Your task to perform on an android device: turn off picture-in-picture Image 0: 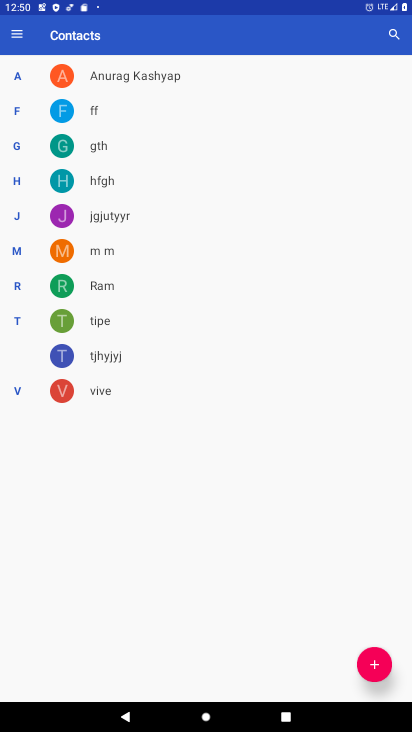
Step 0: press home button
Your task to perform on an android device: turn off picture-in-picture Image 1: 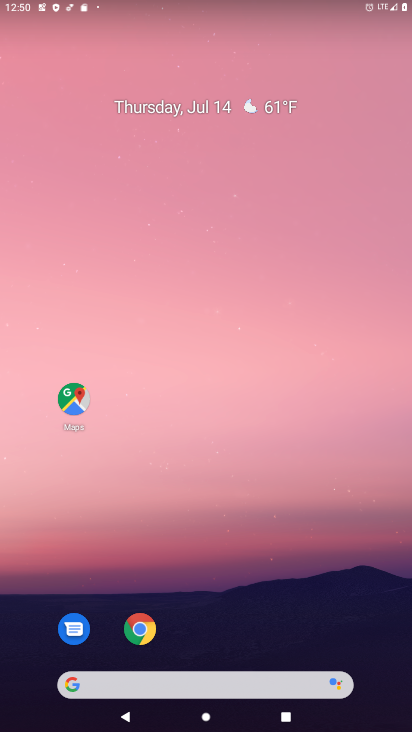
Step 1: drag from (223, 544) to (123, 124)
Your task to perform on an android device: turn off picture-in-picture Image 2: 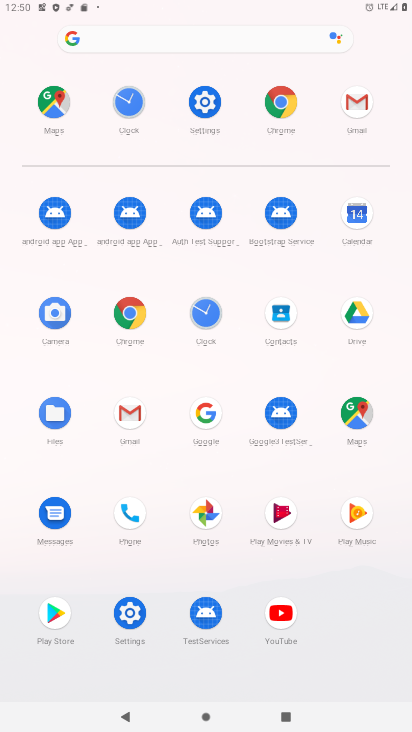
Step 2: click (200, 105)
Your task to perform on an android device: turn off picture-in-picture Image 3: 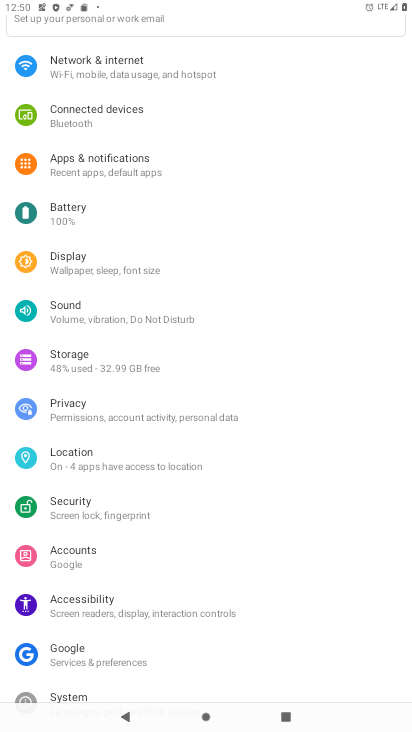
Step 3: click (121, 165)
Your task to perform on an android device: turn off picture-in-picture Image 4: 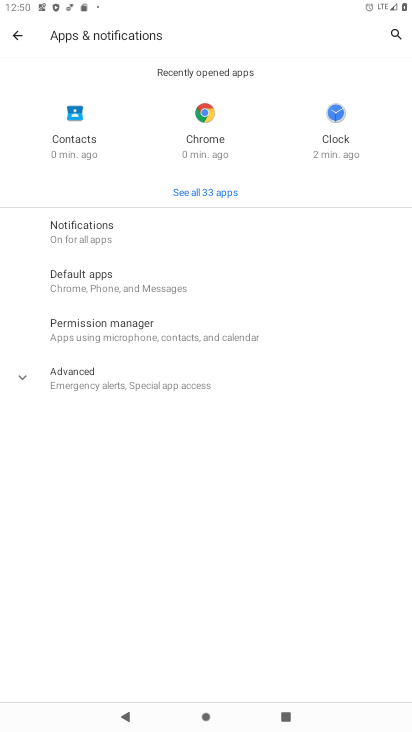
Step 4: click (88, 222)
Your task to perform on an android device: turn off picture-in-picture Image 5: 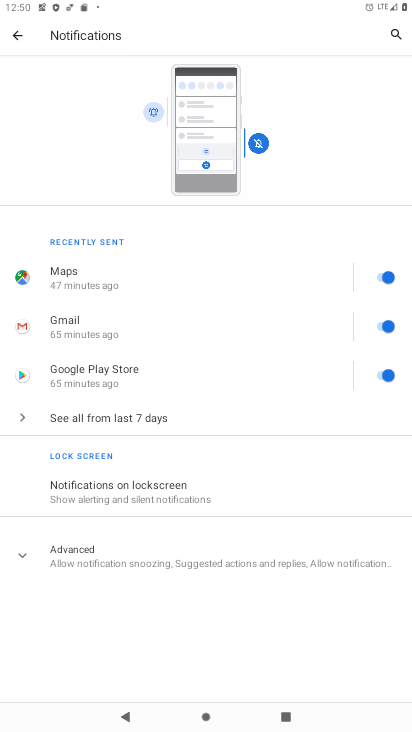
Step 5: click (23, 555)
Your task to perform on an android device: turn off picture-in-picture Image 6: 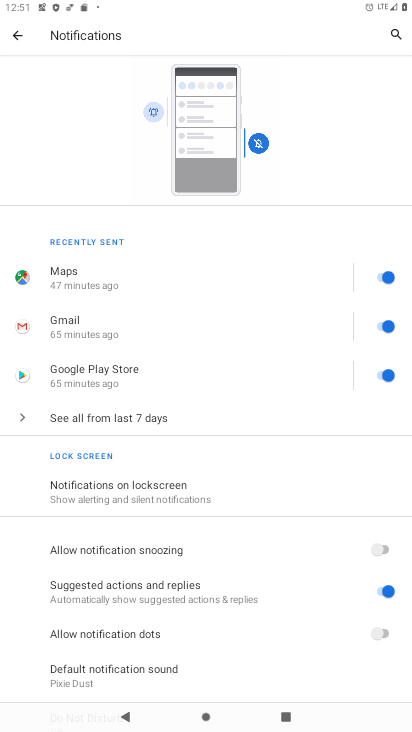
Step 6: drag from (229, 644) to (245, 414)
Your task to perform on an android device: turn off picture-in-picture Image 7: 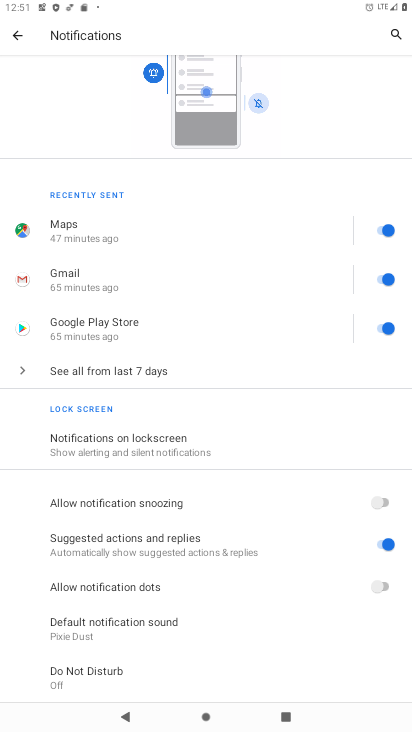
Step 7: click (13, 34)
Your task to perform on an android device: turn off picture-in-picture Image 8: 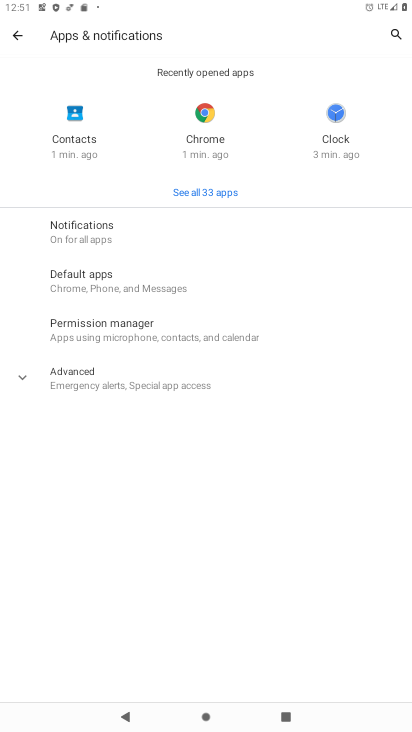
Step 8: click (20, 380)
Your task to perform on an android device: turn off picture-in-picture Image 9: 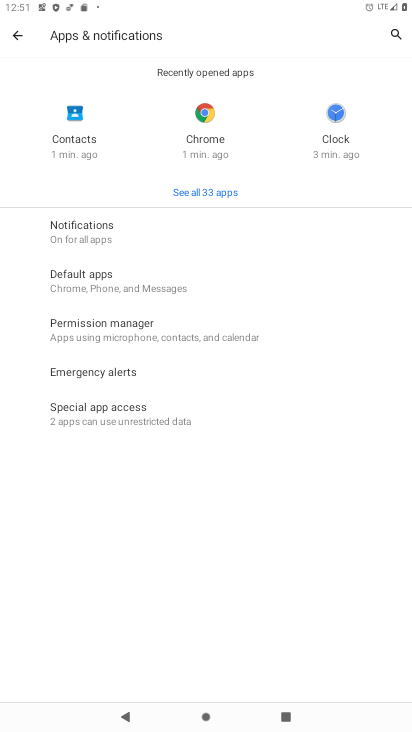
Step 9: click (102, 415)
Your task to perform on an android device: turn off picture-in-picture Image 10: 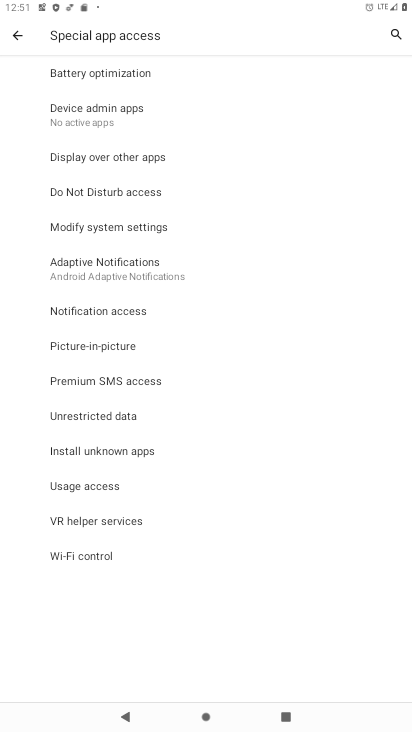
Step 10: click (121, 345)
Your task to perform on an android device: turn off picture-in-picture Image 11: 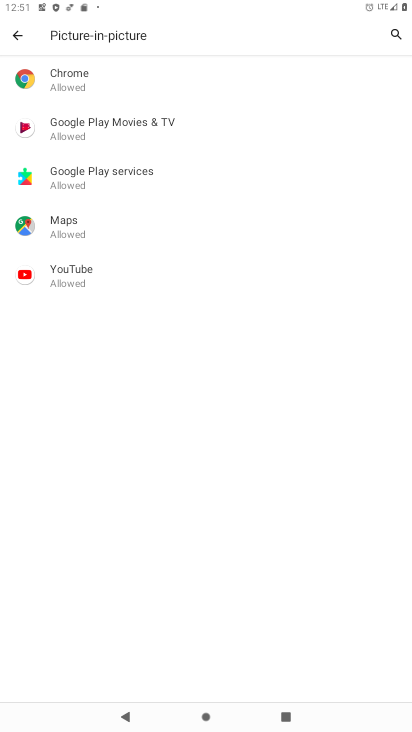
Step 11: click (78, 88)
Your task to perform on an android device: turn off picture-in-picture Image 12: 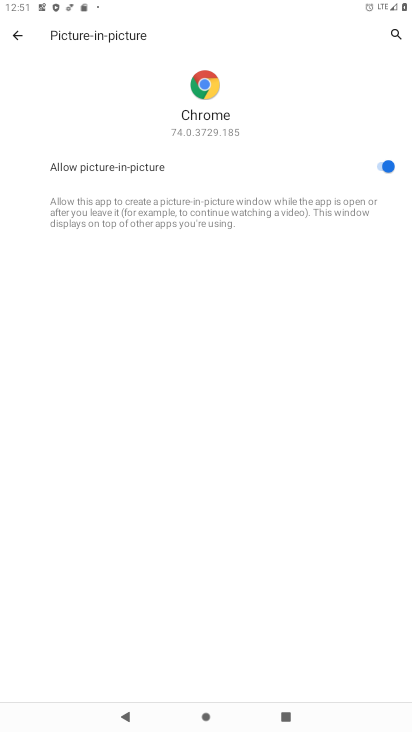
Step 12: click (389, 171)
Your task to perform on an android device: turn off picture-in-picture Image 13: 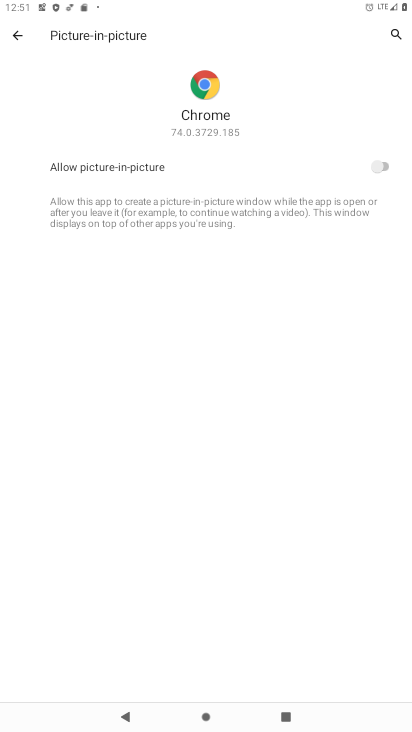
Step 13: click (17, 43)
Your task to perform on an android device: turn off picture-in-picture Image 14: 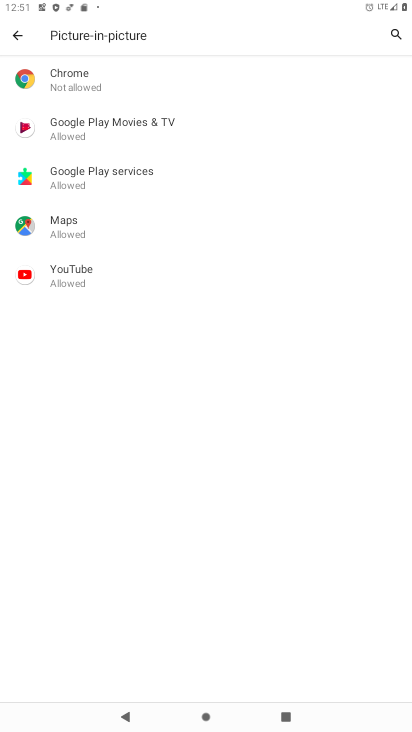
Step 14: click (80, 127)
Your task to perform on an android device: turn off picture-in-picture Image 15: 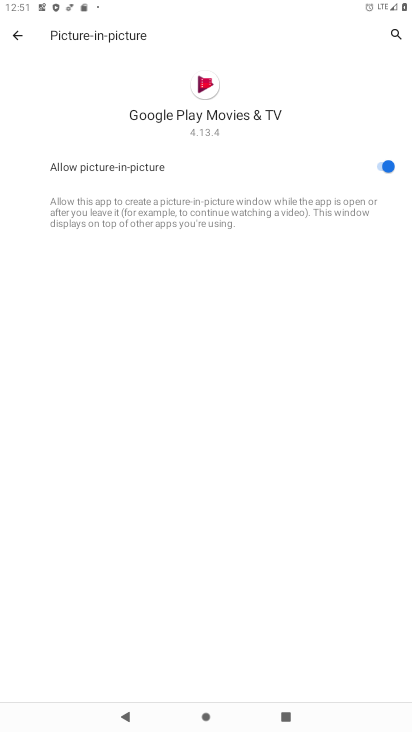
Step 15: click (387, 166)
Your task to perform on an android device: turn off picture-in-picture Image 16: 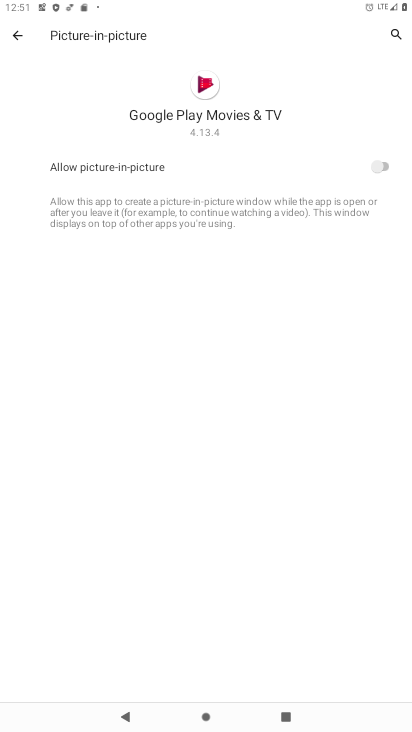
Step 16: click (16, 35)
Your task to perform on an android device: turn off picture-in-picture Image 17: 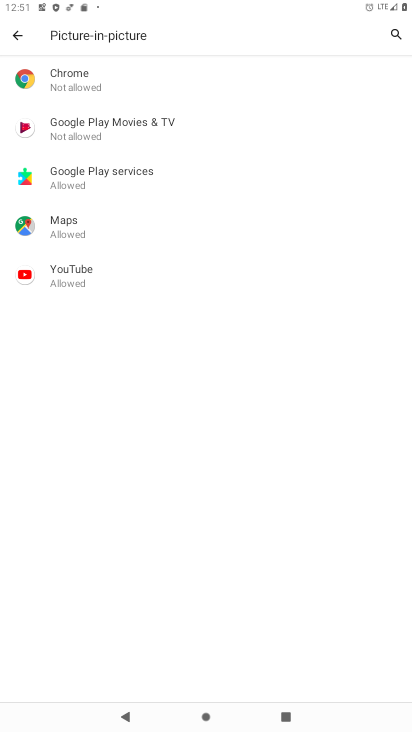
Step 17: click (90, 182)
Your task to perform on an android device: turn off picture-in-picture Image 18: 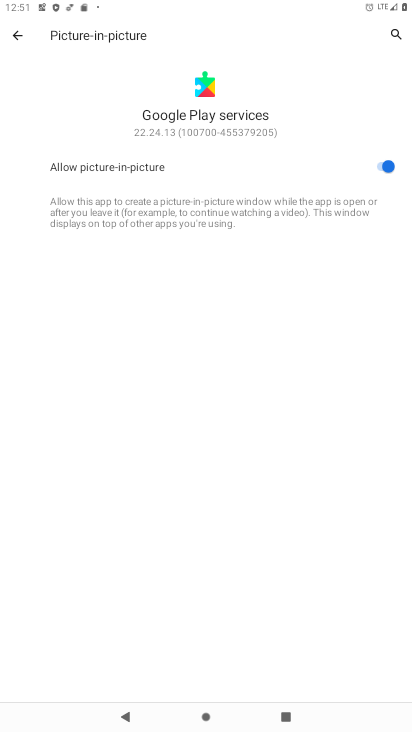
Step 18: click (391, 167)
Your task to perform on an android device: turn off picture-in-picture Image 19: 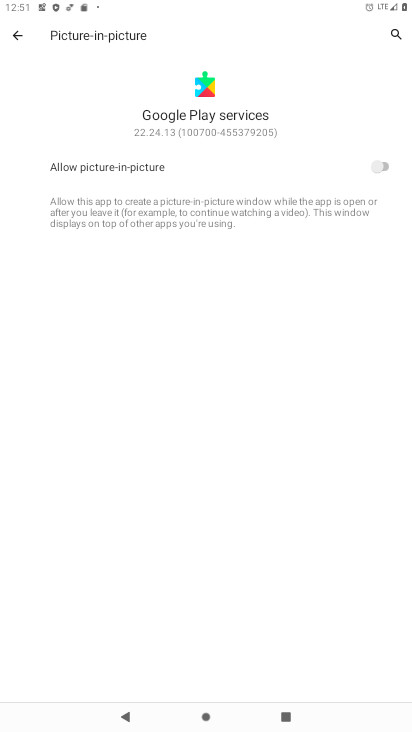
Step 19: click (18, 40)
Your task to perform on an android device: turn off picture-in-picture Image 20: 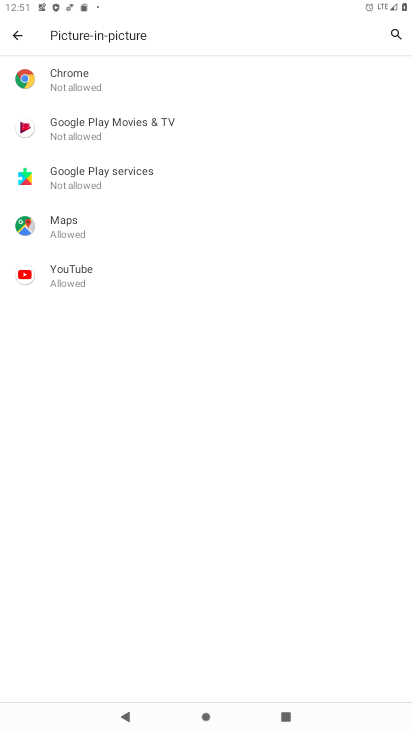
Step 20: click (61, 277)
Your task to perform on an android device: turn off picture-in-picture Image 21: 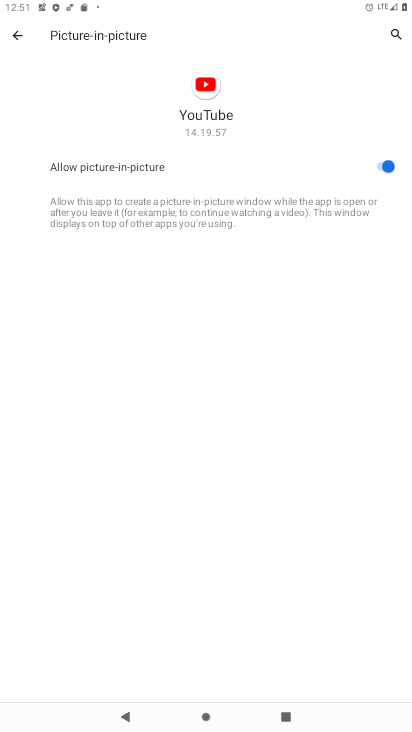
Step 21: click (398, 164)
Your task to perform on an android device: turn off picture-in-picture Image 22: 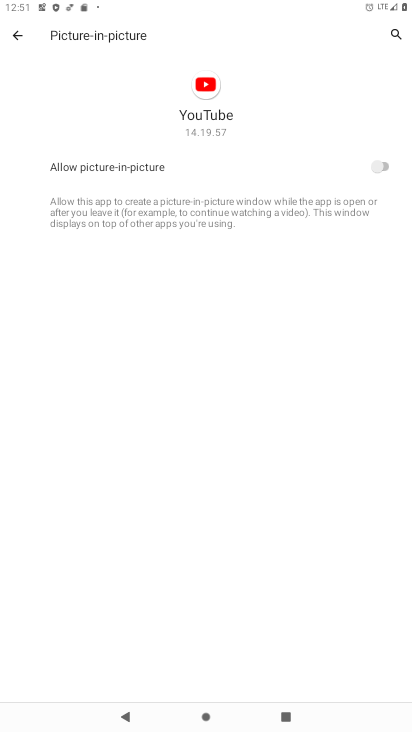
Step 22: click (16, 24)
Your task to perform on an android device: turn off picture-in-picture Image 23: 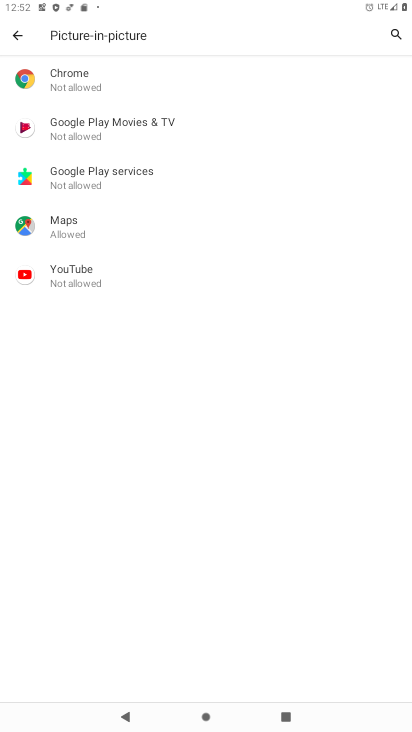
Step 23: click (73, 220)
Your task to perform on an android device: turn off picture-in-picture Image 24: 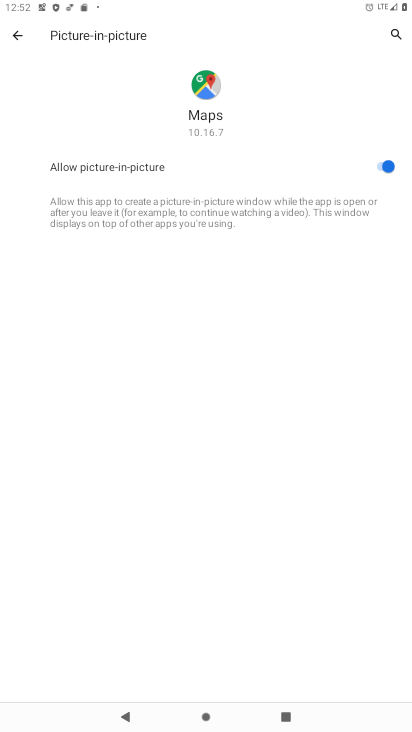
Step 24: click (386, 163)
Your task to perform on an android device: turn off picture-in-picture Image 25: 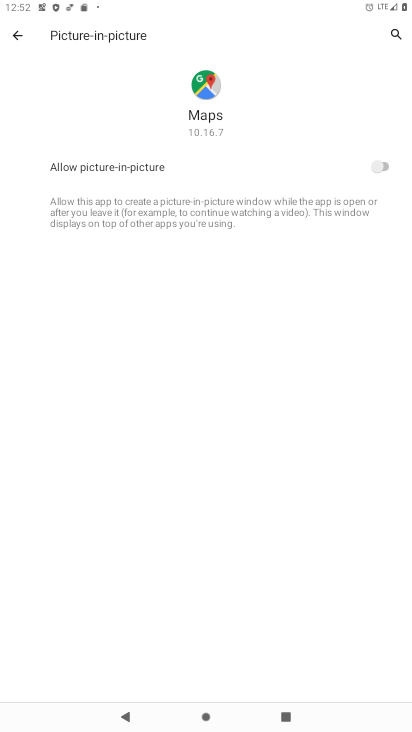
Step 25: click (13, 29)
Your task to perform on an android device: turn off picture-in-picture Image 26: 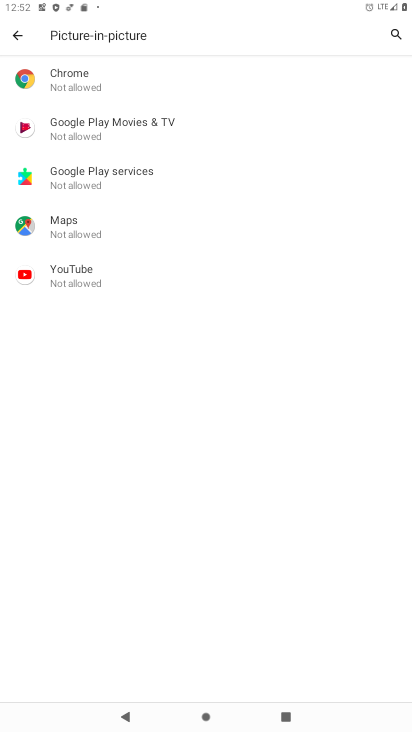
Step 26: task complete